Your task to perform on an android device: change notification settings in the gmail app Image 0: 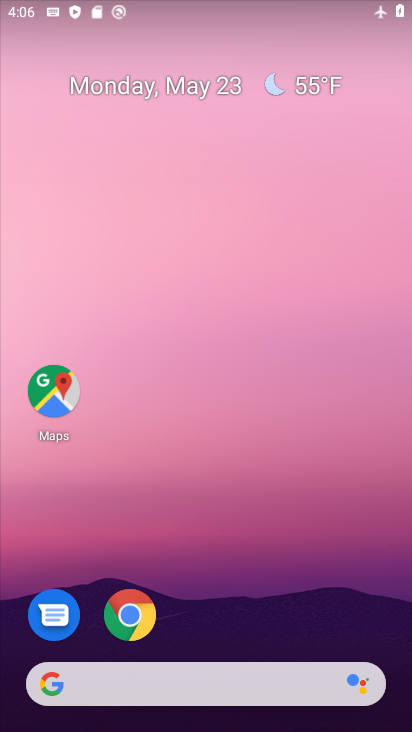
Step 0: drag from (381, 642) to (388, 308)
Your task to perform on an android device: change notification settings in the gmail app Image 1: 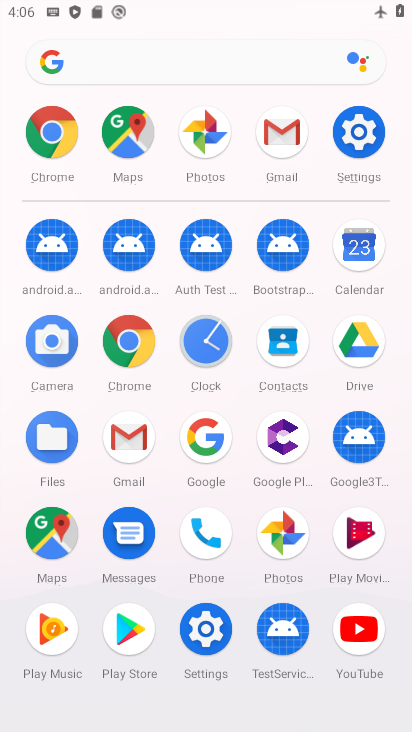
Step 1: click (126, 447)
Your task to perform on an android device: change notification settings in the gmail app Image 2: 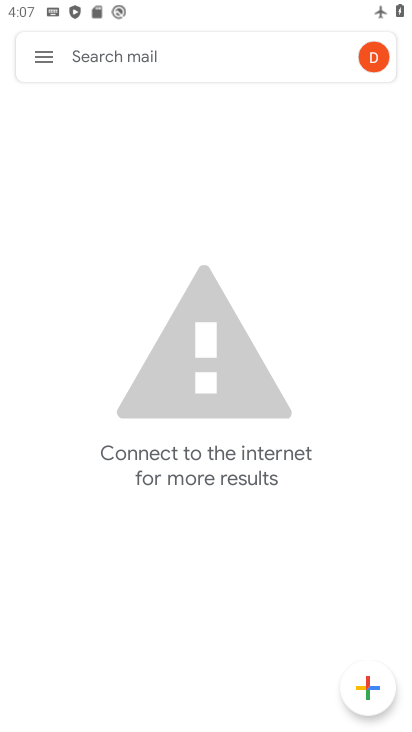
Step 2: click (42, 60)
Your task to perform on an android device: change notification settings in the gmail app Image 3: 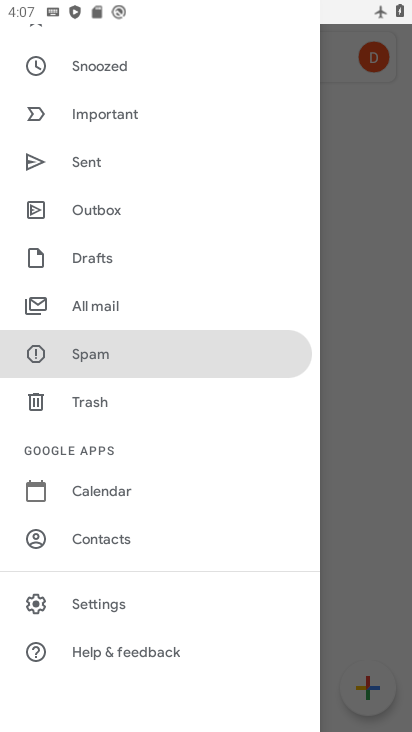
Step 3: drag from (225, 218) to (211, 336)
Your task to perform on an android device: change notification settings in the gmail app Image 4: 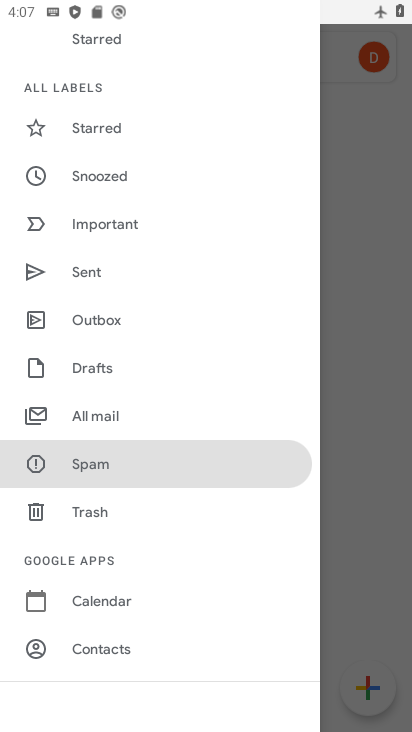
Step 4: drag from (243, 208) to (229, 332)
Your task to perform on an android device: change notification settings in the gmail app Image 5: 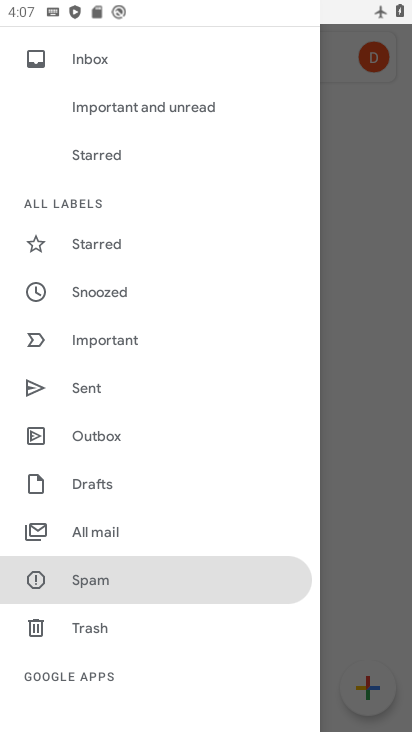
Step 5: drag from (258, 202) to (248, 333)
Your task to perform on an android device: change notification settings in the gmail app Image 6: 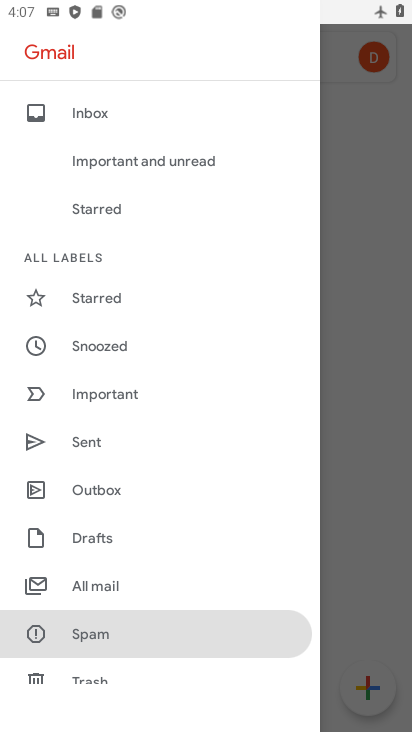
Step 6: drag from (262, 478) to (269, 377)
Your task to perform on an android device: change notification settings in the gmail app Image 7: 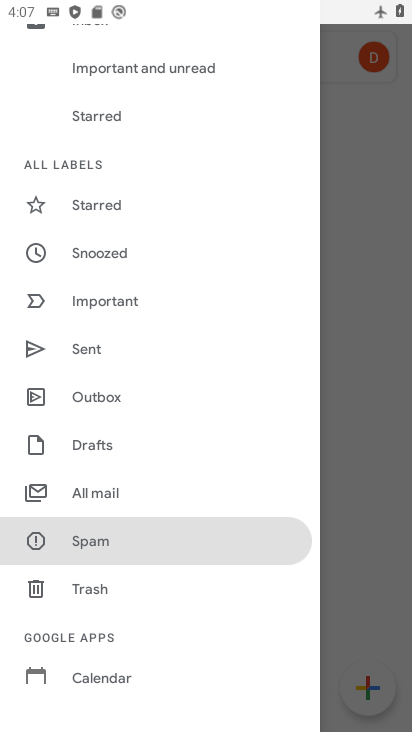
Step 7: drag from (256, 457) to (262, 376)
Your task to perform on an android device: change notification settings in the gmail app Image 8: 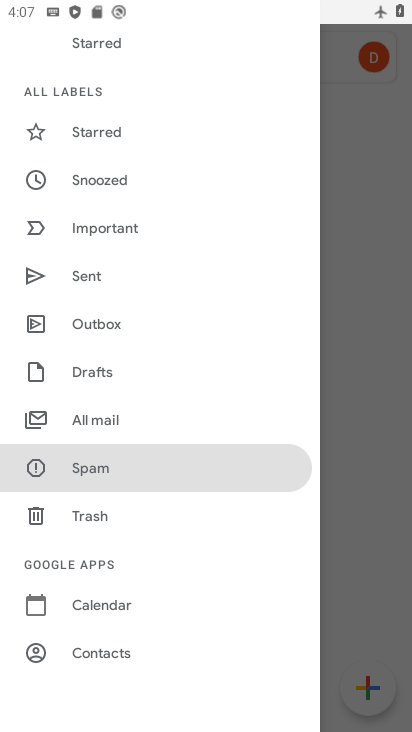
Step 8: drag from (250, 548) to (246, 422)
Your task to perform on an android device: change notification settings in the gmail app Image 9: 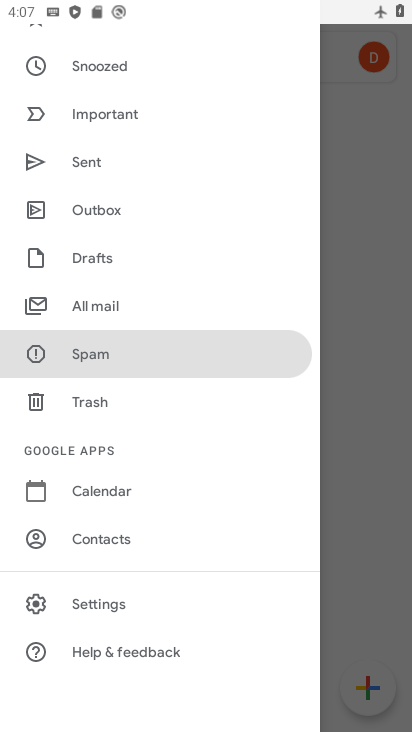
Step 9: drag from (244, 572) to (245, 447)
Your task to perform on an android device: change notification settings in the gmail app Image 10: 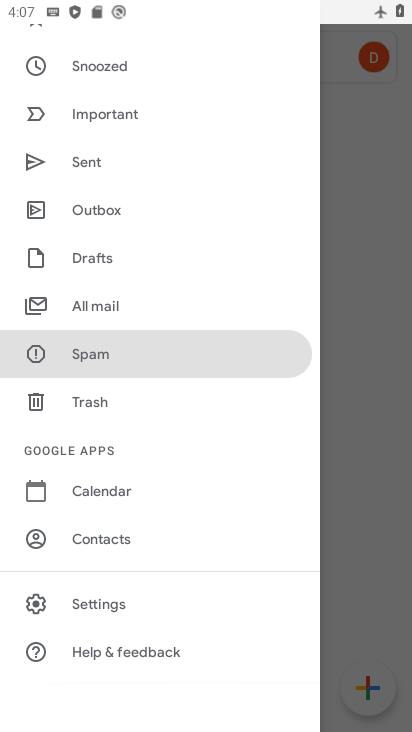
Step 10: drag from (227, 588) to (228, 478)
Your task to perform on an android device: change notification settings in the gmail app Image 11: 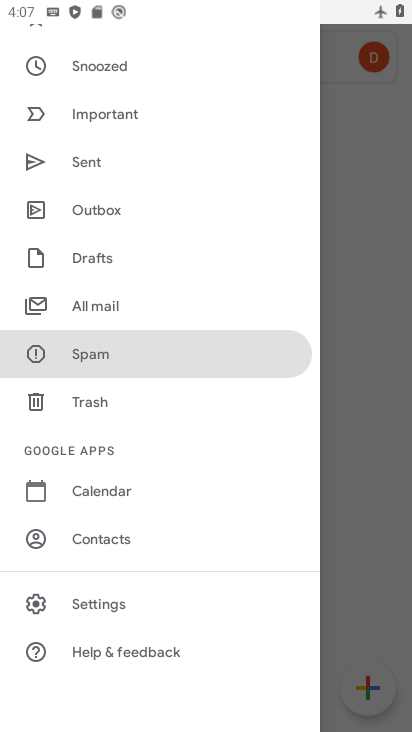
Step 11: click (125, 611)
Your task to perform on an android device: change notification settings in the gmail app Image 12: 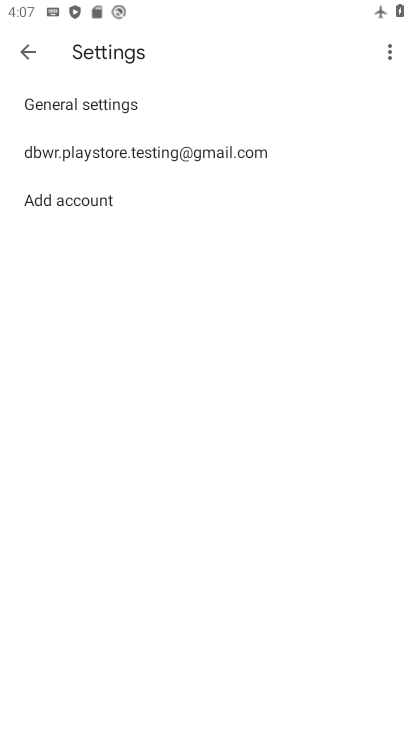
Step 12: click (232, 157)
Your task to perform on an android device: change notification settings in the gmail app Image 13: 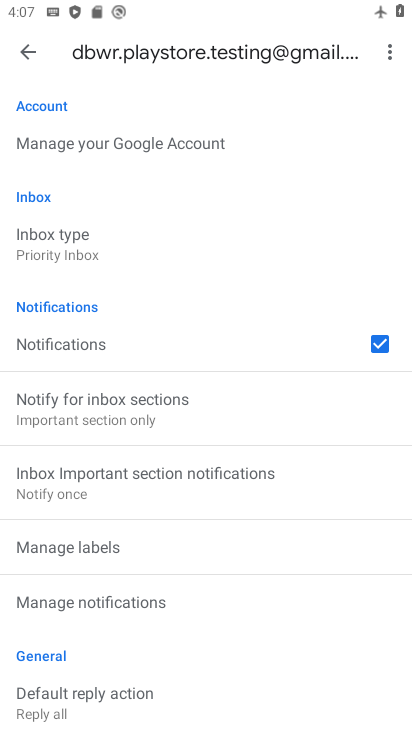
Step 13: drag from (262, 542) to (265, 466)
Your task to perform on an android device: change notification settings in the gmail app Image 14: 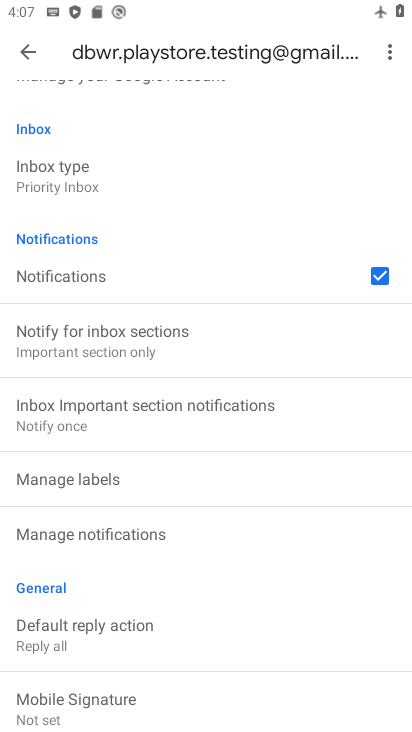
Step 14: drag from (279, 585) to (281, 493)
Your task to perform on an android device: change notification settings in the gmail app Image 15: 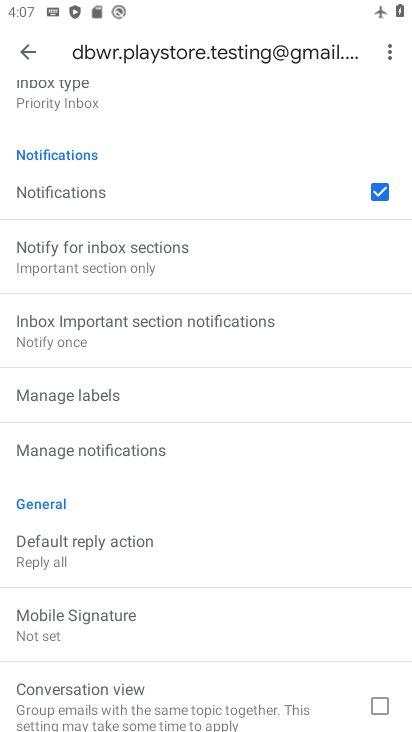
Step 15: drag from (273, 603) to (289, 438)
Your task to perform on an android device: change notification settings in the gmail app Image 16: 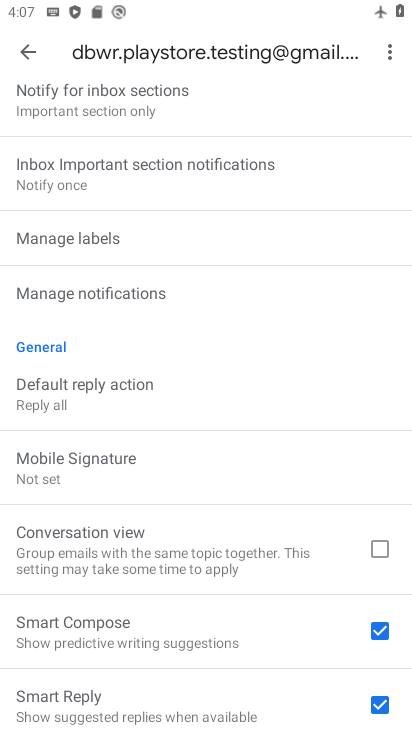
Step 16: drag from (269, 617) to (279, 472)
Your task to perform on an android device: change notification settings in the gmail app Image 17: 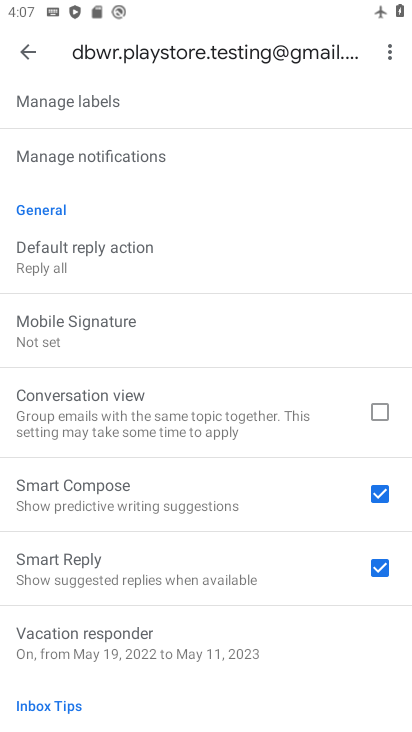
Step 17: drag from (299, 598) to (298, 432)
Your task to perform on an android device: change notification settings in the gmail app Image 18: 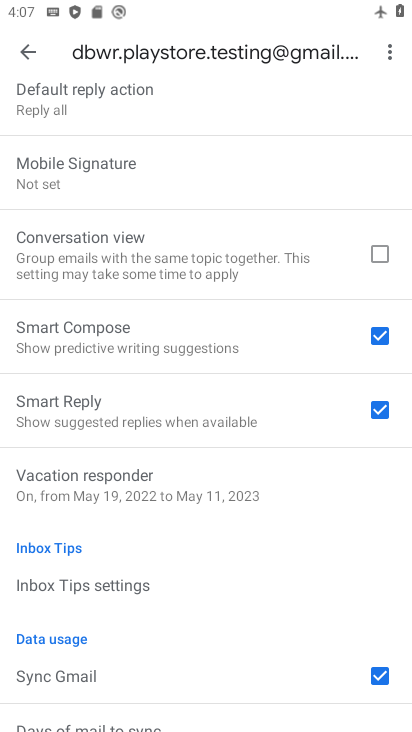
Step 18: drag from (286, 590) to (286, 457)
Your task to perform on an android device: change notification settings in the gmail app Image 19: 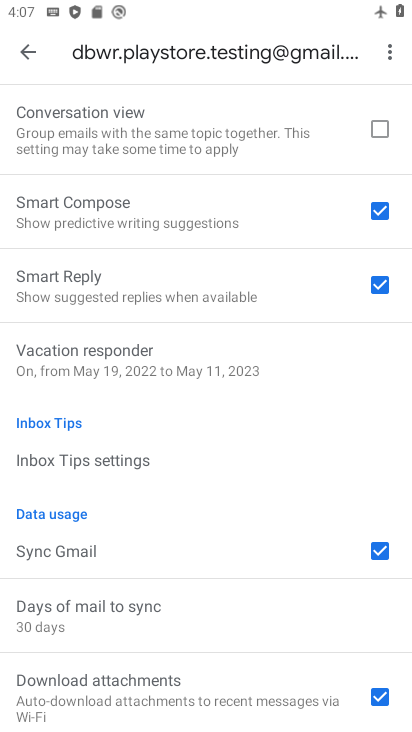
Step 19: drag from (275, 616) to (303, 425)
Your task to perform on an android device: change notification settings in the gmail app Image 20: 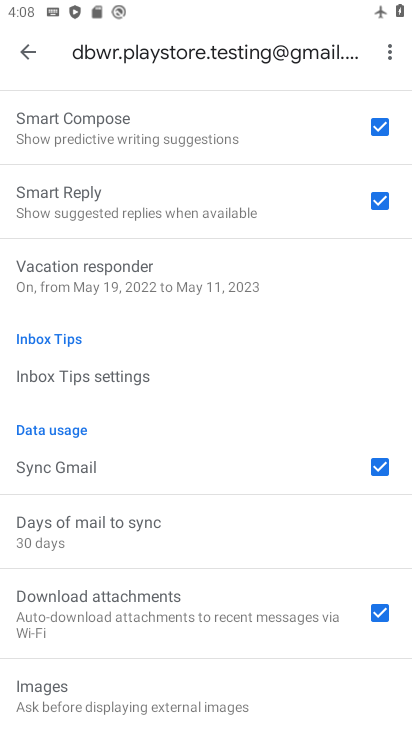
Step 20: drag from (277, 573) to (272, 405)
Your task to perform on an android device: change notification settings in the gmail app Image 21: 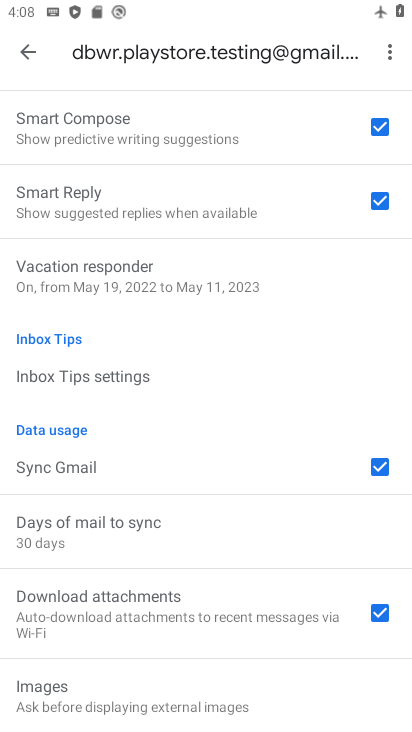
Step 21: drag from (274, 296) to (267, 438)
Your task to perform on an android device: change notification settings in the gmail app Image 22: 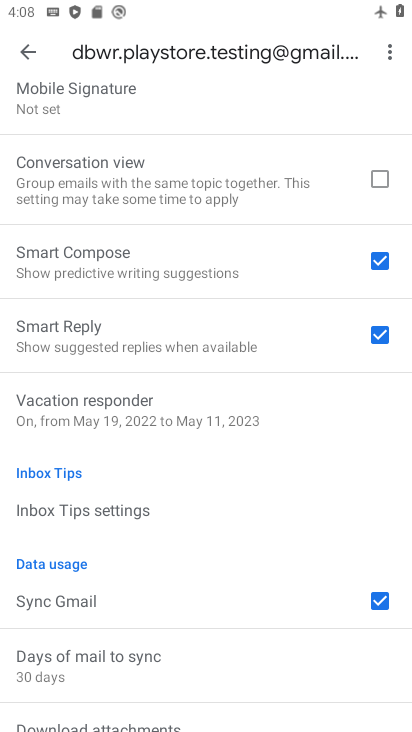
Step 22: drag from (281, 265) to (265, 380)
Your task to perform on an android device: change notification settings in the gmail app Image 23: 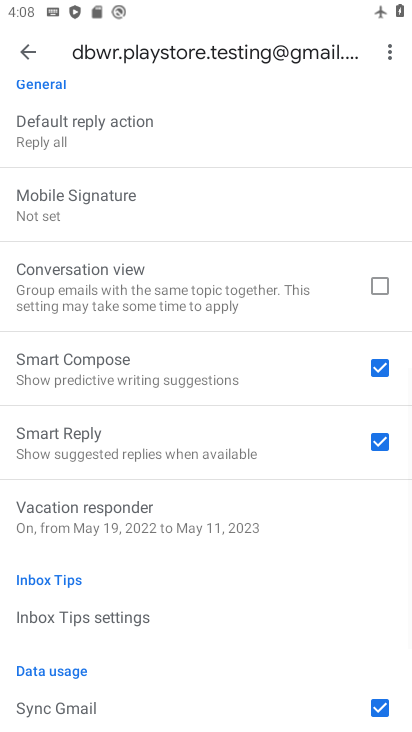
Step 23: drag from (261, 228) to (237, 398)
Your task to perform on an android device: change notification settings in the gmail app Image 24: 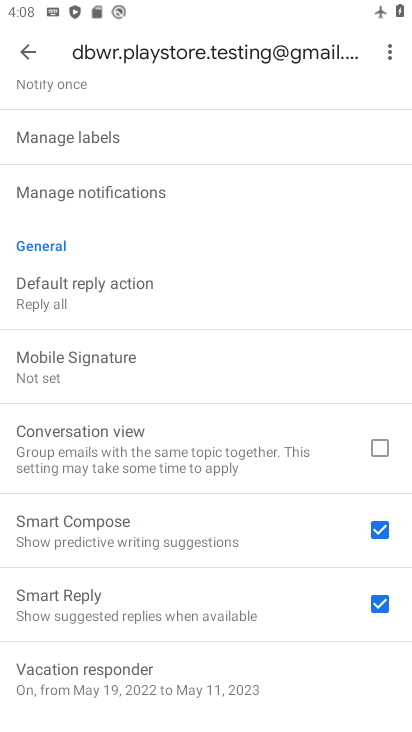
Step 24: drag from (221, 259) to (213, 402)
Your task to perform on an android device: change notification settings in the gmail app Image 25: 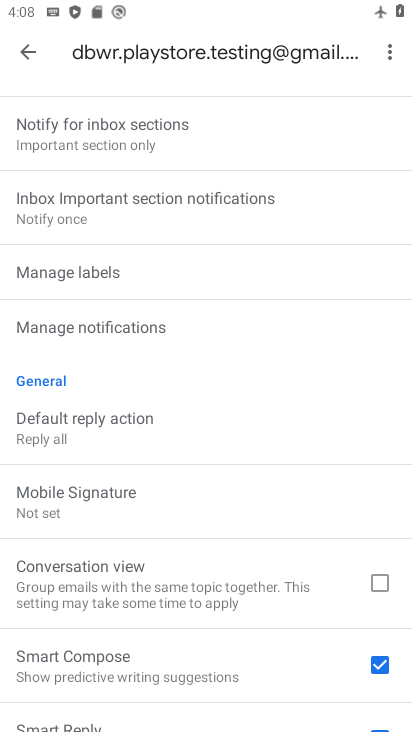
Step 25: click (168, 331)
Your task to perform on an android device: change notification settings in the gmail app Image 26: 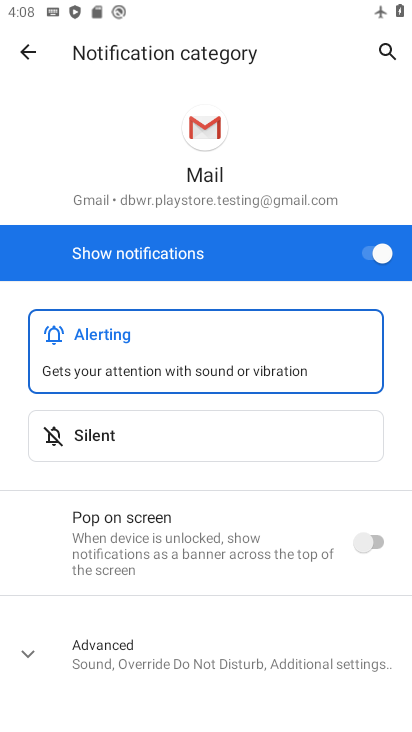
Step 26: click (383, 257)
Your task to perform on an android device: change notification settings in the gmail app Image 27: 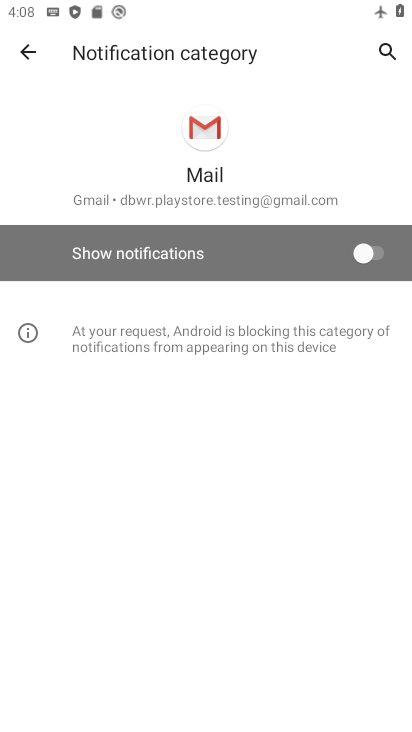
Step 27: task complete